Your task to perform on an android device: Is it going to rain this weekend? Image 0: 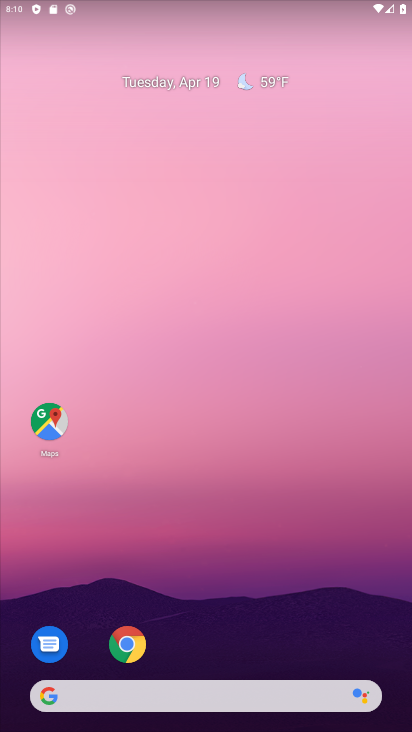
Step 0: click (220, 695)
Your task to perform on an android device: Is it going to rain this weekend? Image 1: 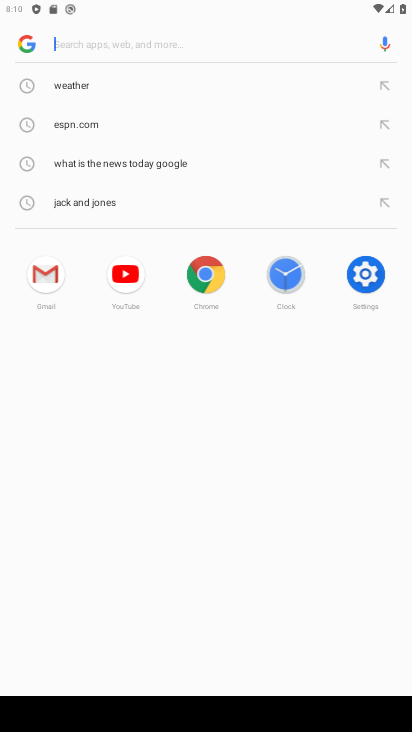
Step 1: type "Is it going to rain this weekend"
Your task to perform on an android device: Is it going to rain this weekend? Image 2: 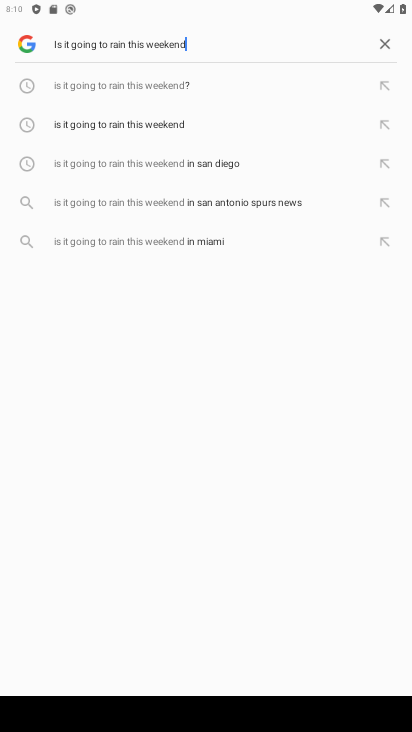
Step 2: click (192, 85)
Your task to perform on an android device: Is it going to rain this weekend? Image 3: 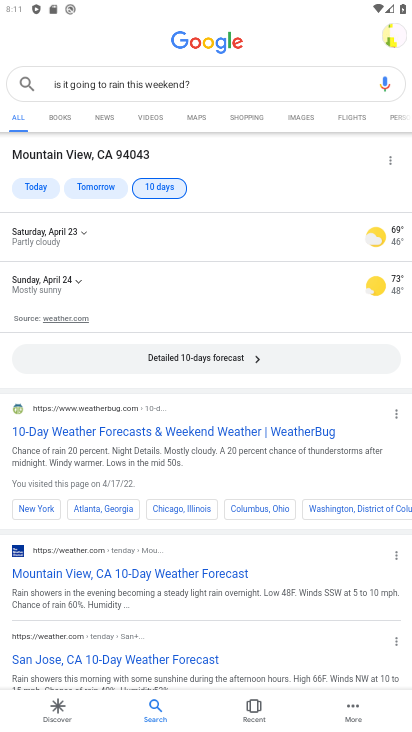
Step 3: task complete